Your task to perform on an android device: uninstall "VLC for Android" Image 0: 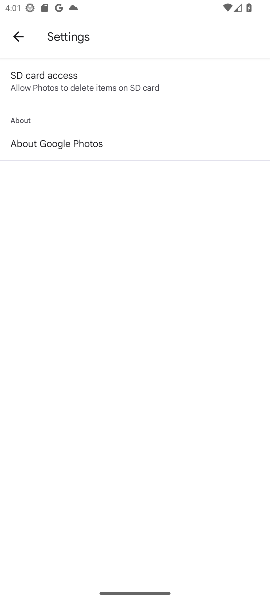
Step 0: press home button
Your task to perform on an android device: uninstall "VLC for Android" Image 1: 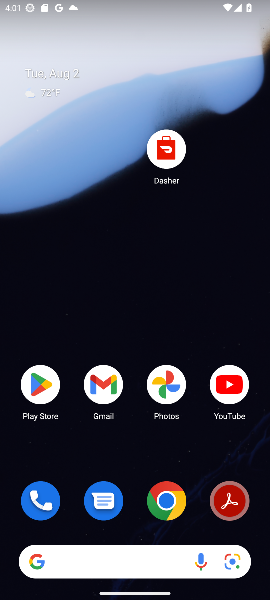
Step 1: click (39, 387)
Your task to perform on an android device: uninstall "VLC for Android" Image 2: 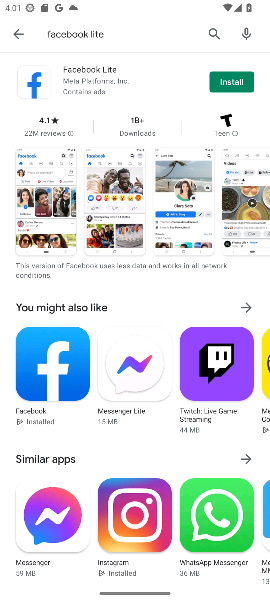
Step 2: click (213, 35)
Your task to perform on an android device: uninstall "VLC for Android" Image 3: 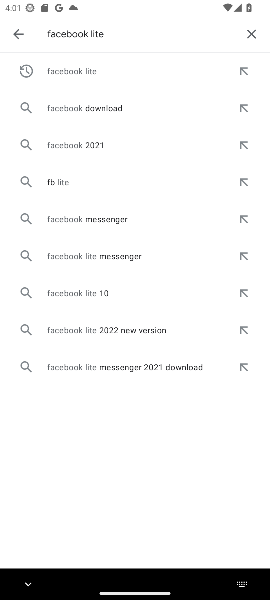
Step 3: click (255, 37)
Your task to perform on an android device: uninstall "VLC for Android" Image 4: 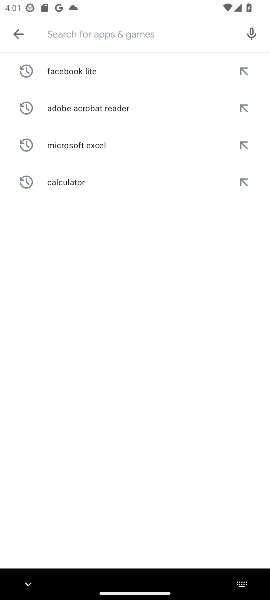
Step 4: type "VLC for Android"
Your task to perform on an android device: uninstall "VLC for Android" Image 5: 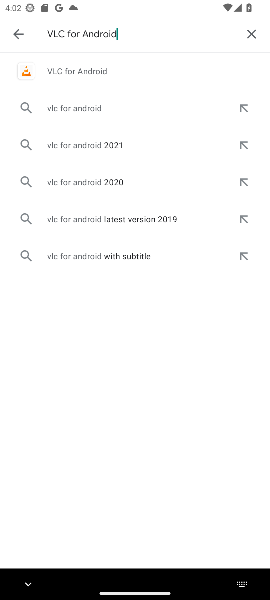
Step 5: click (65, 75)
Your task to perform on an android device: uninstall "VLC for Android" Image 6: 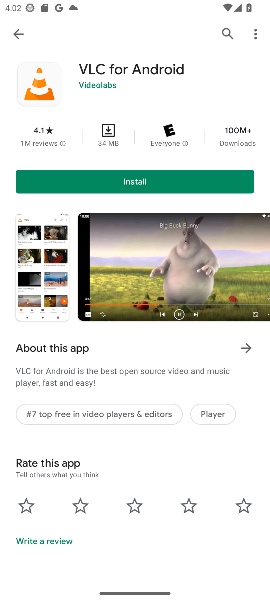
Step 6: task complete